Your task to perform on an android device: Open Yahoo.com Image 0: 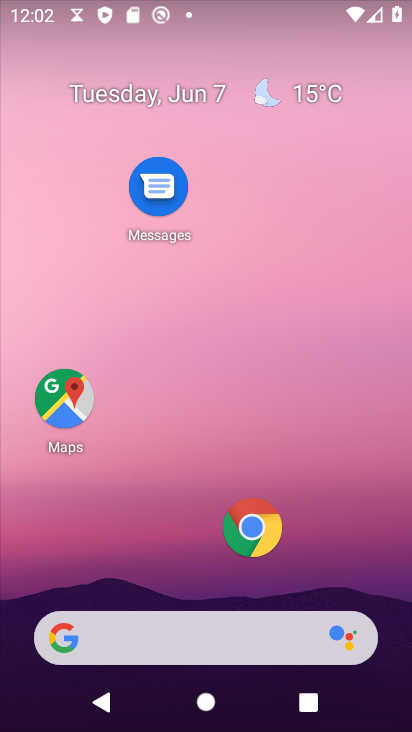
Step 0: click (247, 524)
Your task to perform on an android device: Open Yahoo.com Image 1: 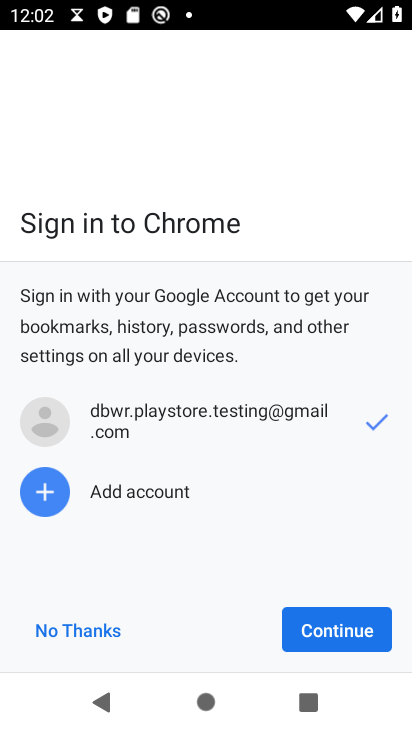
Step 1: click (373, 623)
Your task to perform on an android device: Open Yahoo.com Image 2: 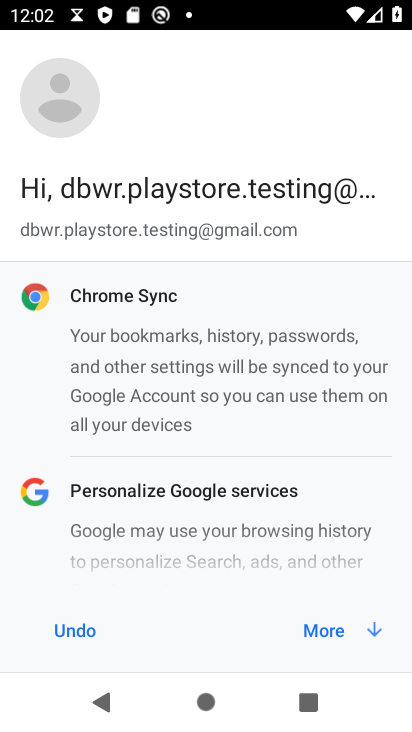
Step 2: click (342, 634)
Your task to perform on an android device: Open Yahoo.com Image 3: 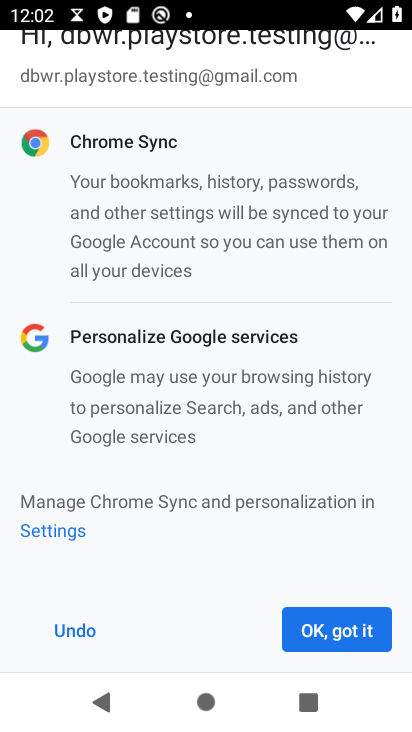
Step 3: click (342, 634)
Your task to perform on an android device: Open Yahoo.com Image 4: 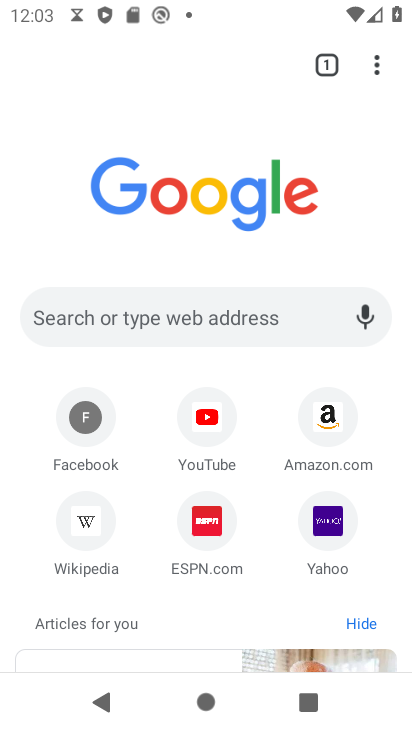
Step 4: click (335, 527)
Your task to perform on an android device: Open Yahoo.com Image 5: 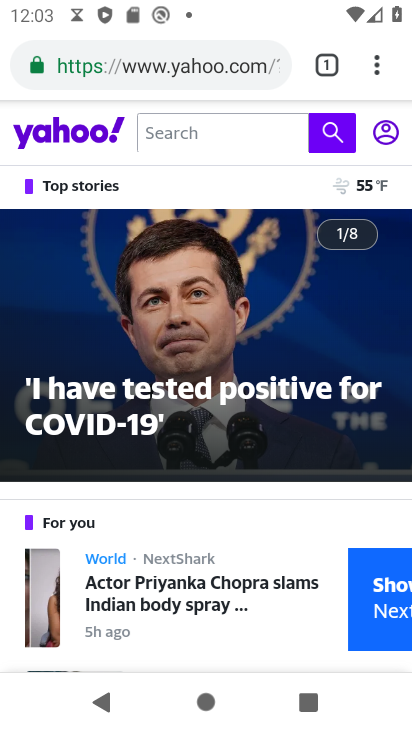
Step 5: task complete